Your task to perform on an android device: Set the phone to "Do not disturb". Image 0: 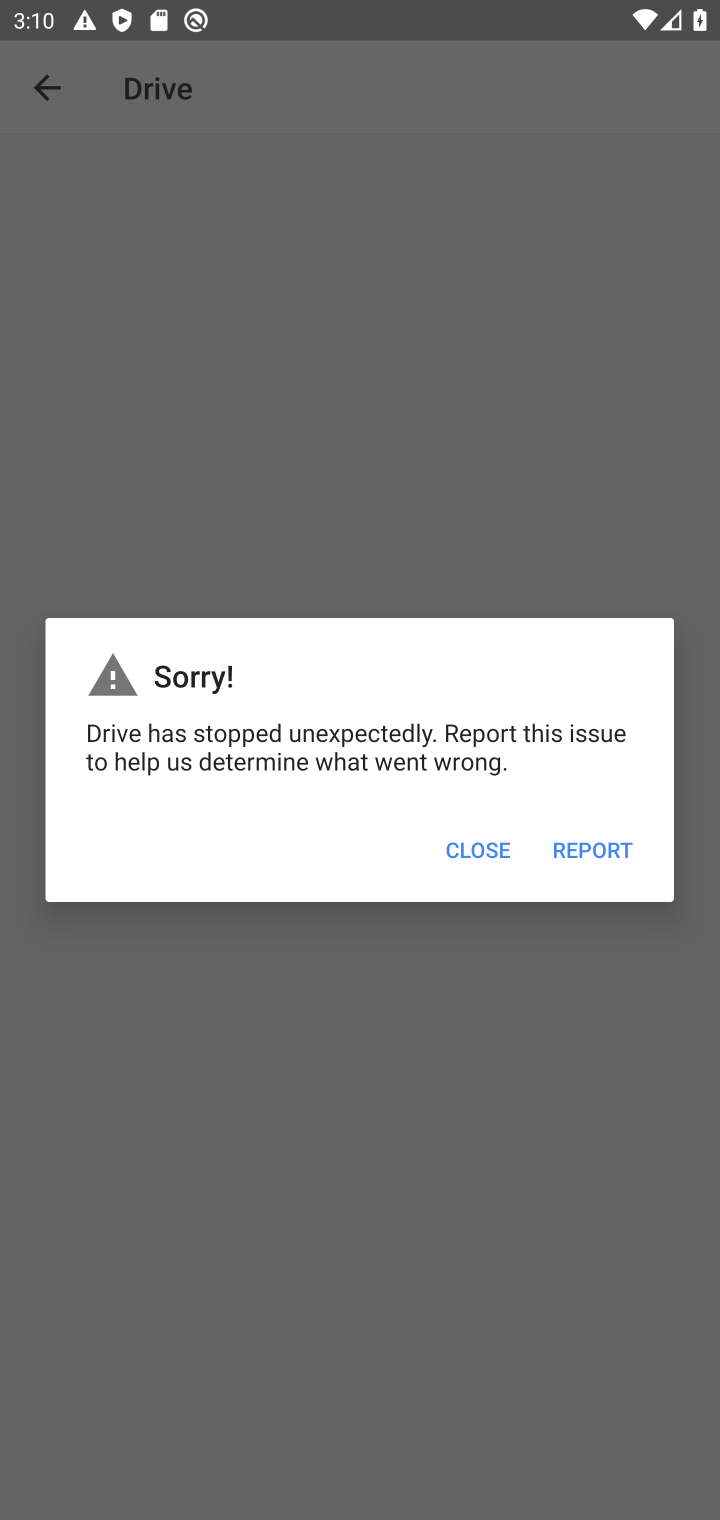
Step 0: press home button
Your task to perform on an android device: Set the phone to "Do not disturb". Image 1: 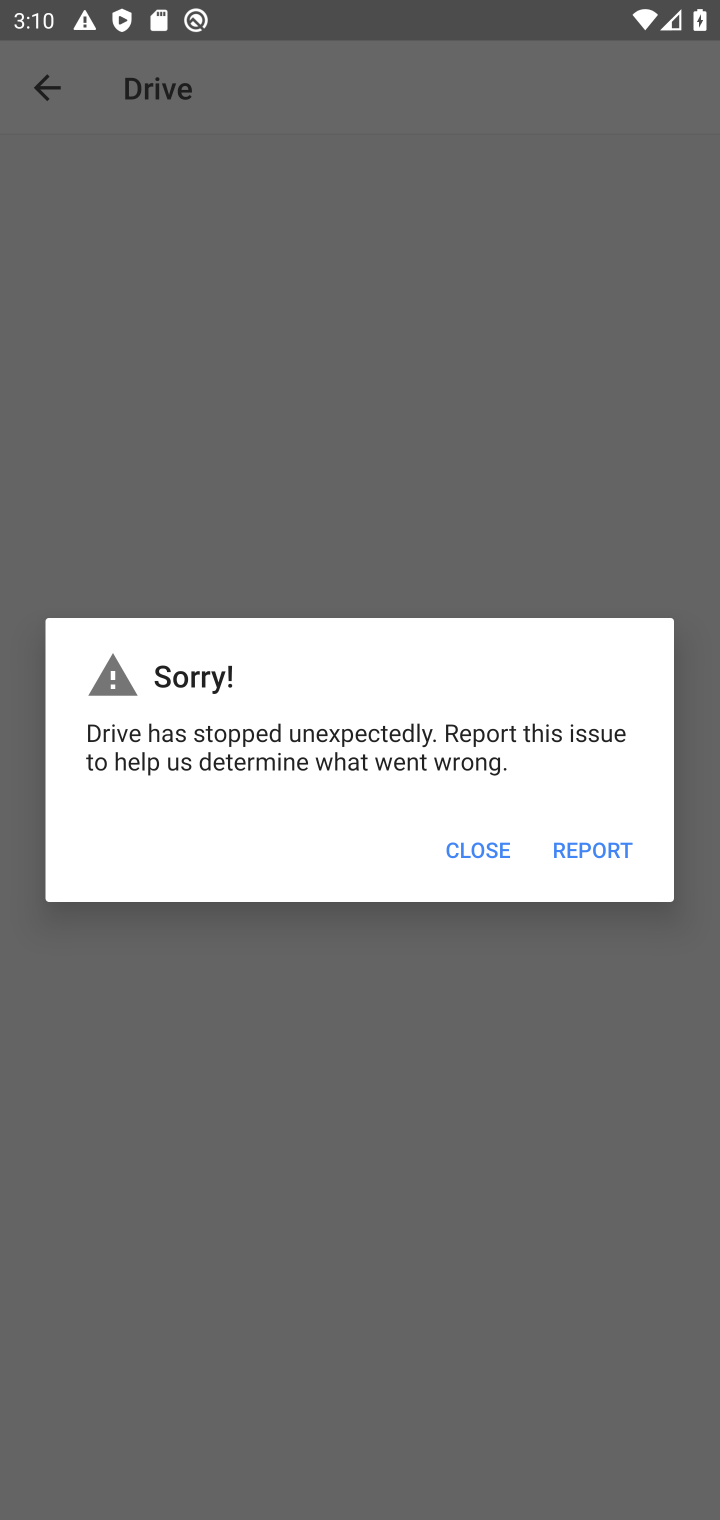
Step 1: press home button
Your task to perform on an android device: Set the phone to "Do not disturb". Image 2: 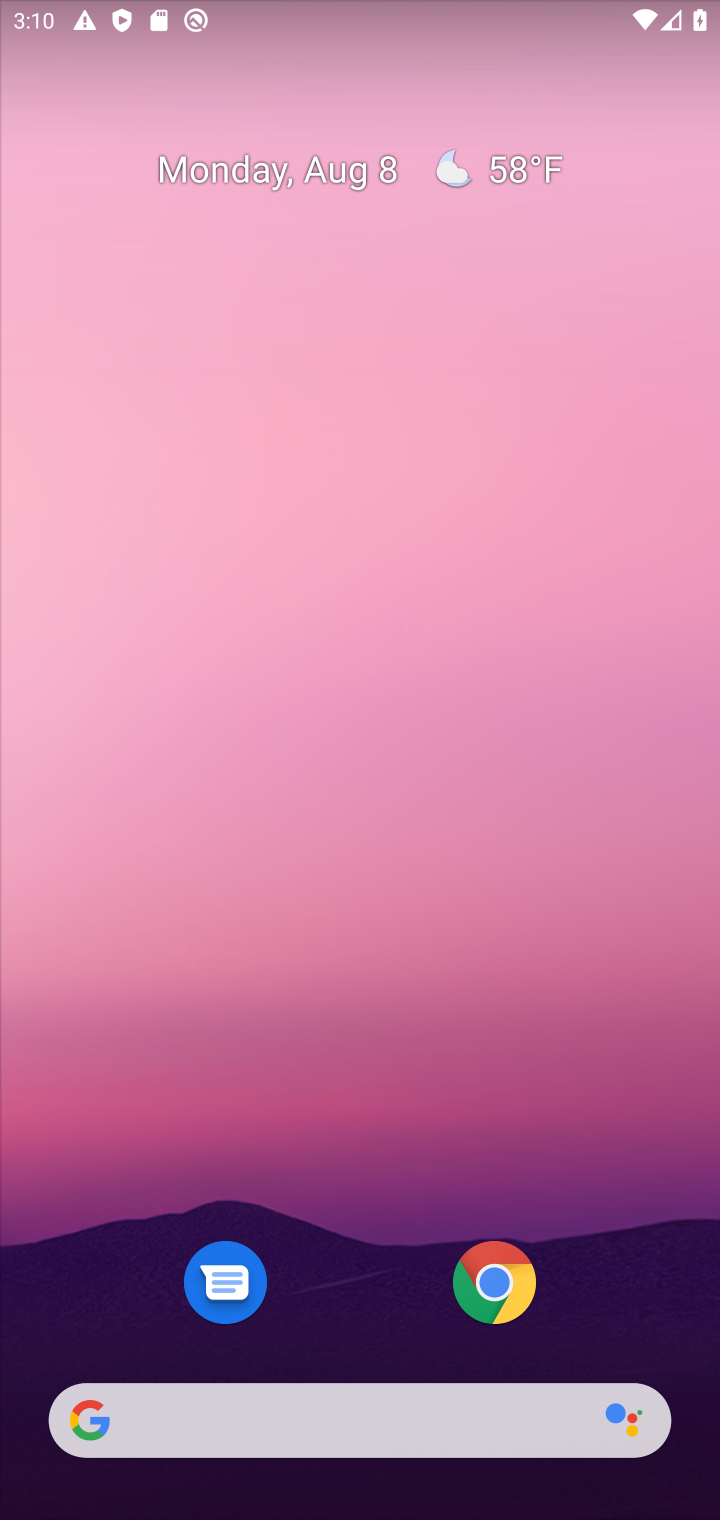
Step 2: drag from (357, 1223) to (620, 148)
Your task to perform on an android device: Set the phone to "Do not disturb". Image 3: 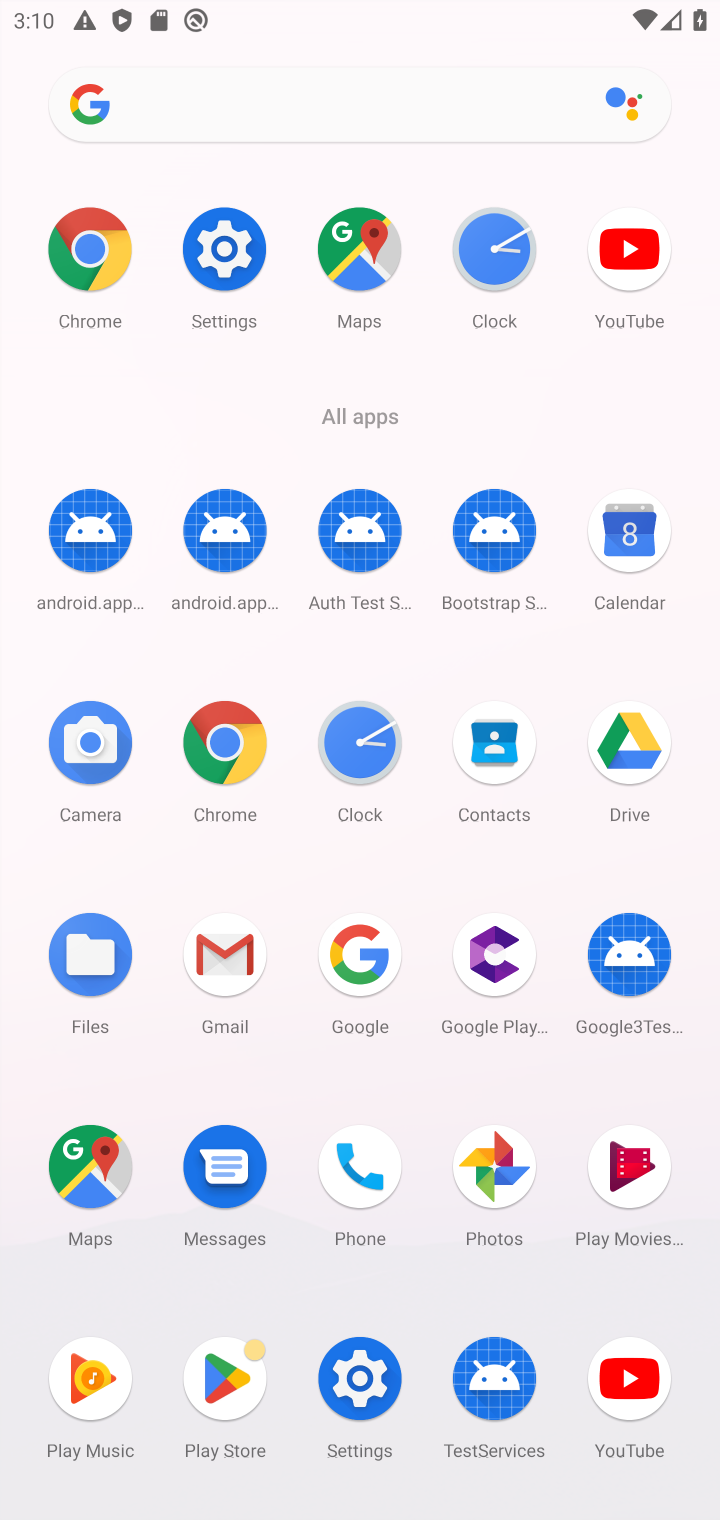
Step 3: press home button
Your task to perform on an android device: Set the phone to "Do not disturb". Image 4: 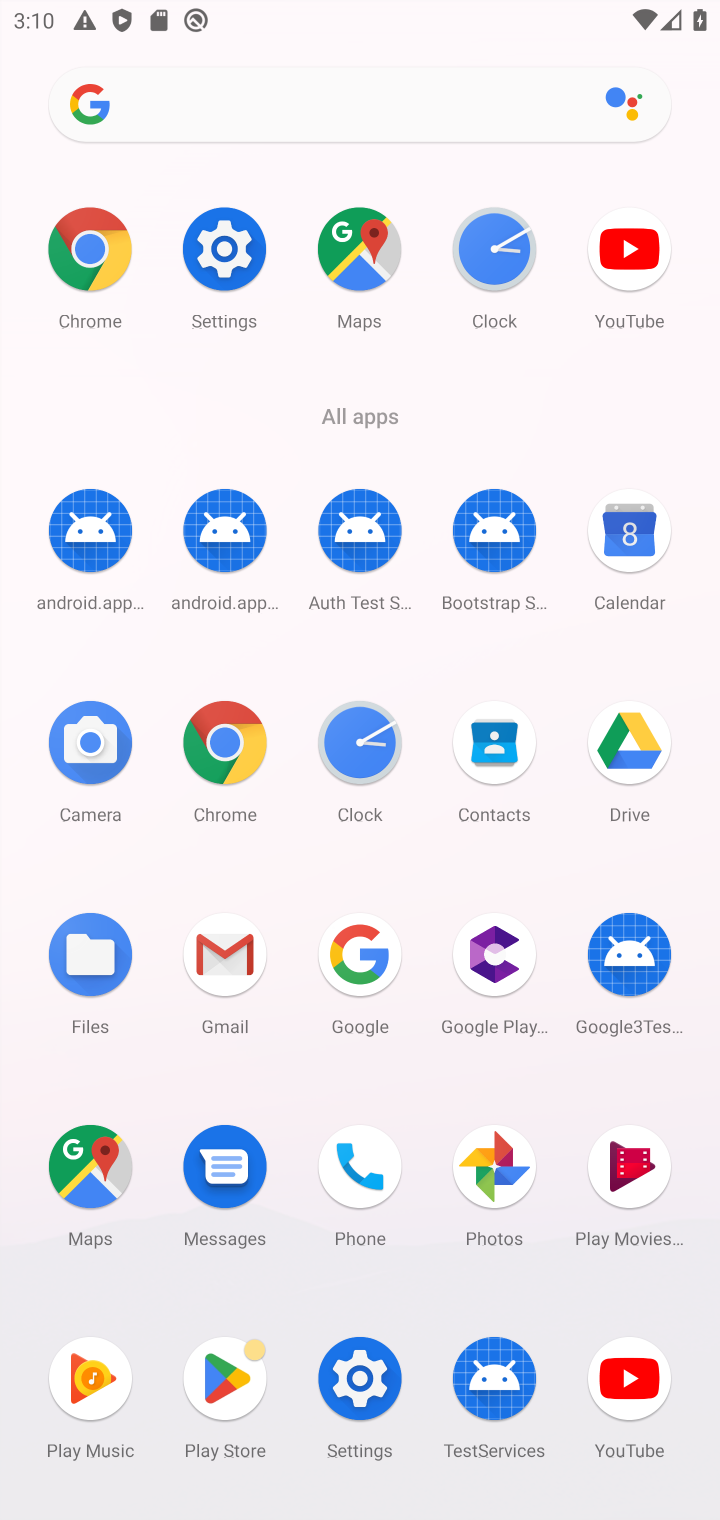
Step 4: press home button
Your task to perform on an android device: Set the phone to "Do not disturb". Image 5: 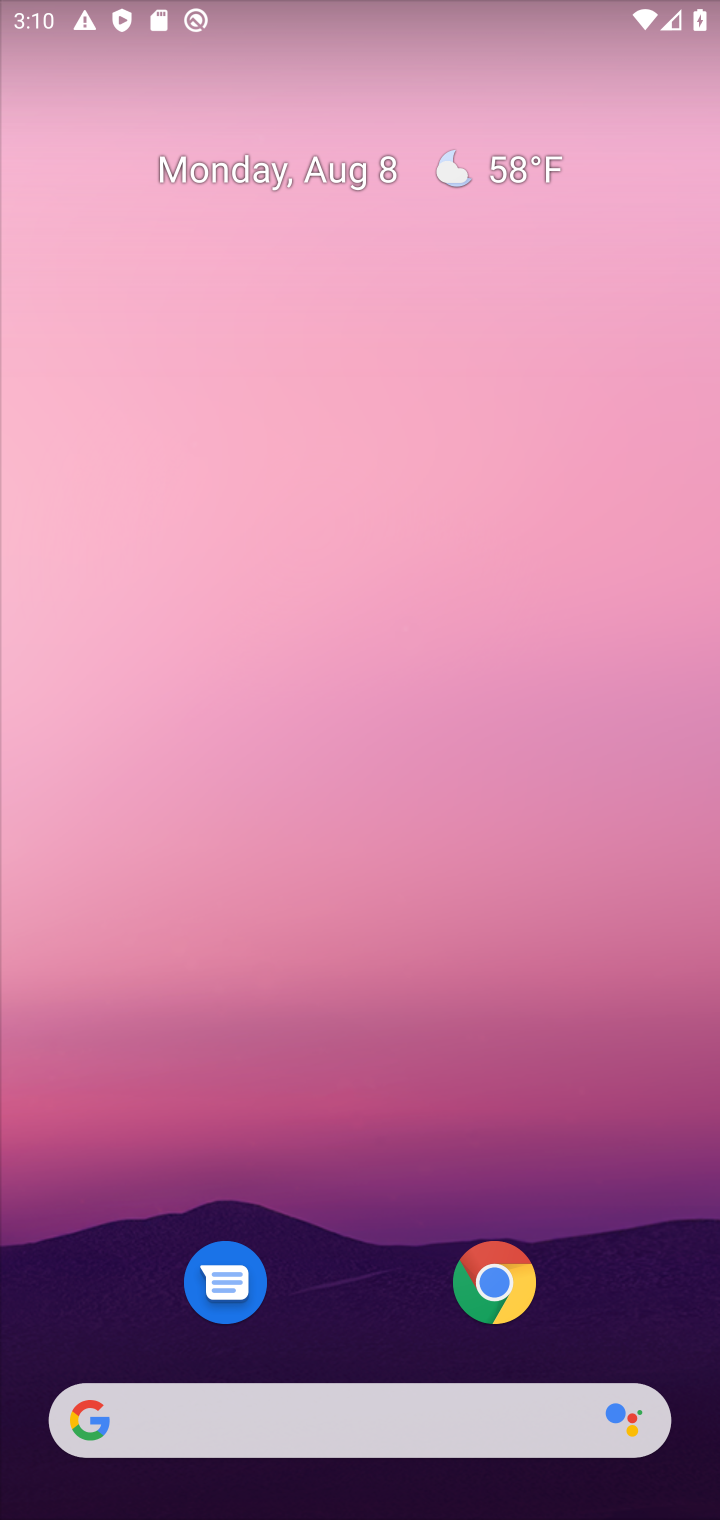
Step 5: drag from (451, 14) to (354, 1233)
Your task to perform on an android device: Set the phone to "Do not disturb". Image 6: 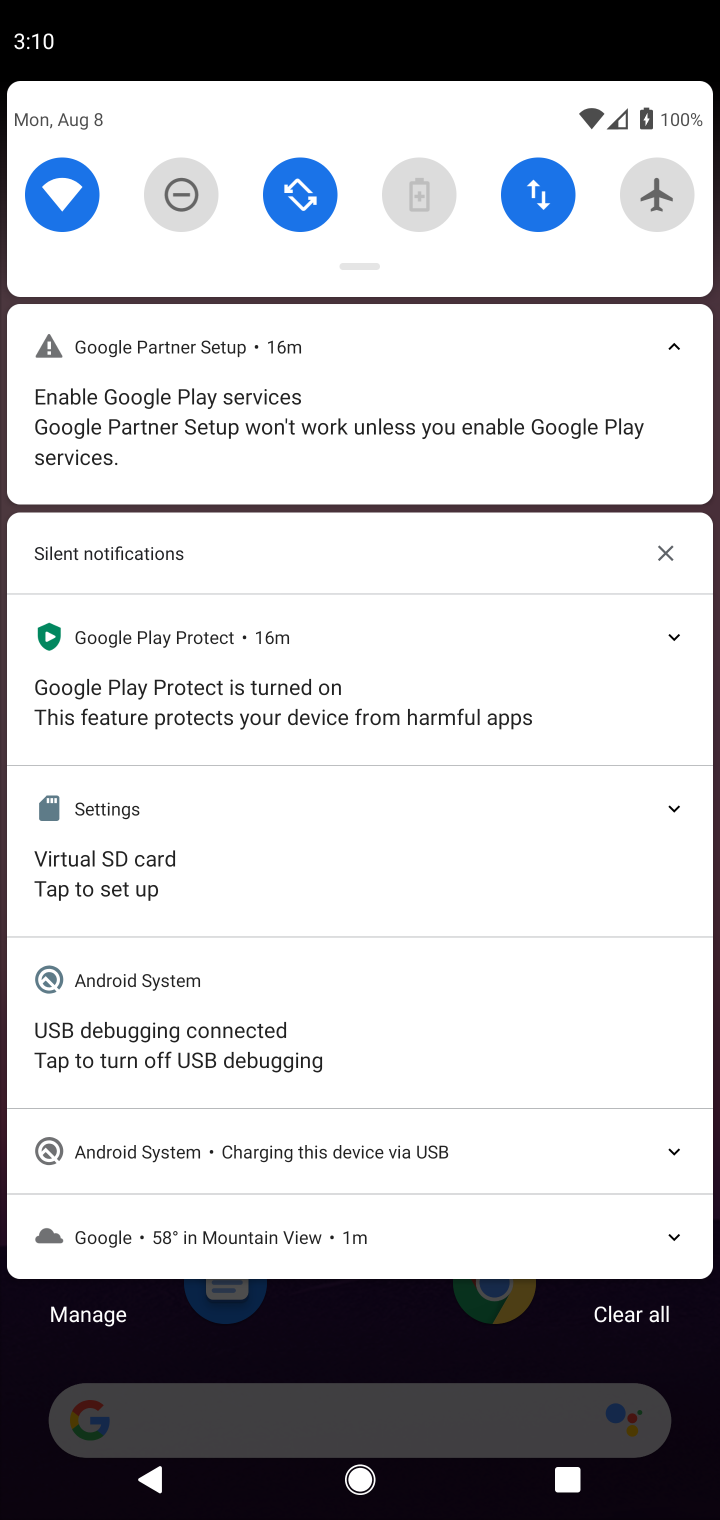
Step 6: click (187, 175)
Your task to perform on an android device: Set the phone to "Do not disturb". Image 7: 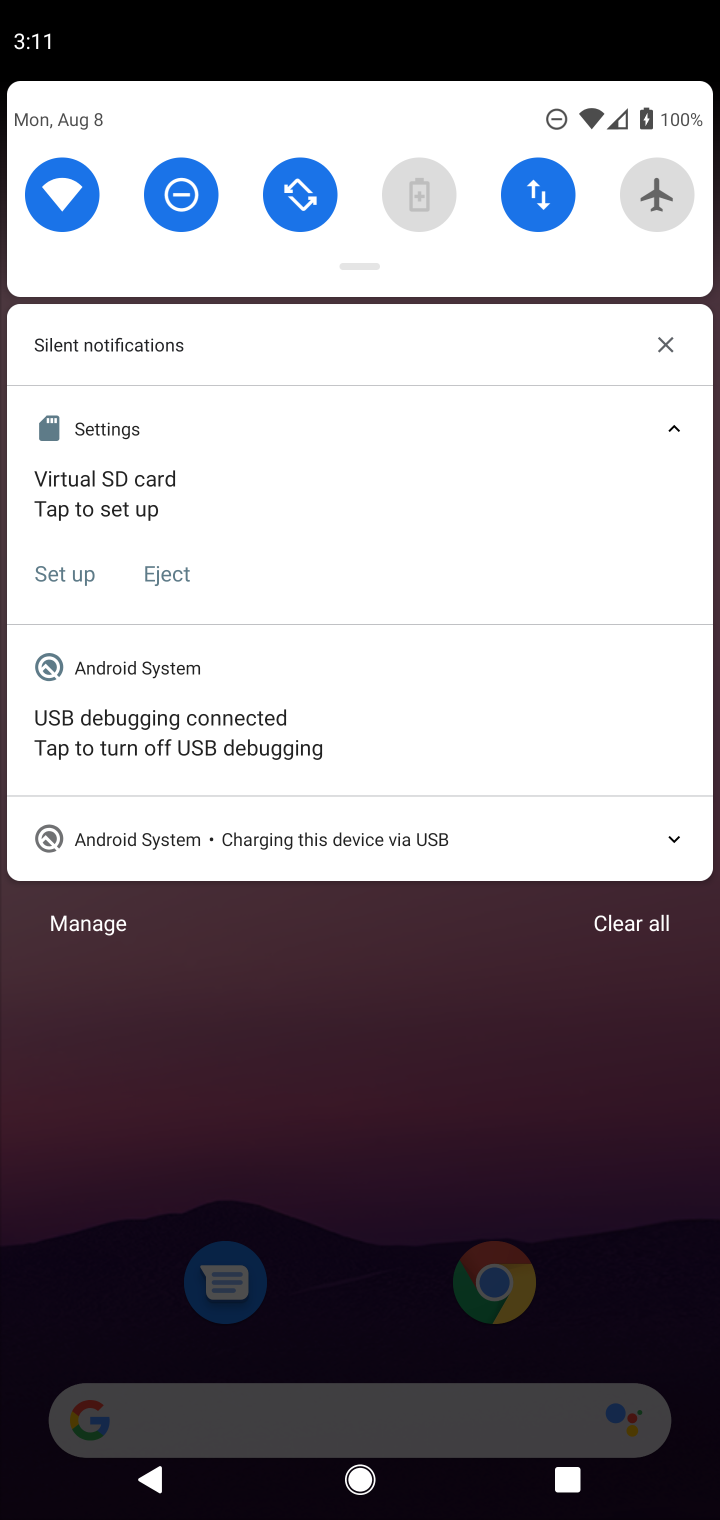
Step 7: task complete